Your task to perform on an android device: Do I have any events tomorrow? Image 0: 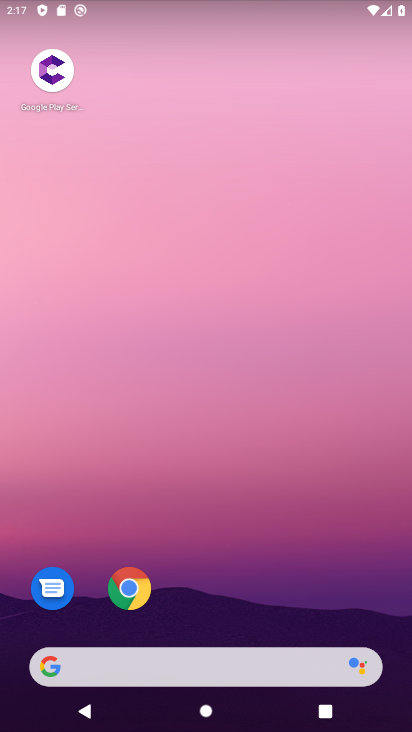
Step 0: drag from (192, 468) to (171, 64)
Your task to perform on an android device: Do I have any events tomorrow? Image 1: 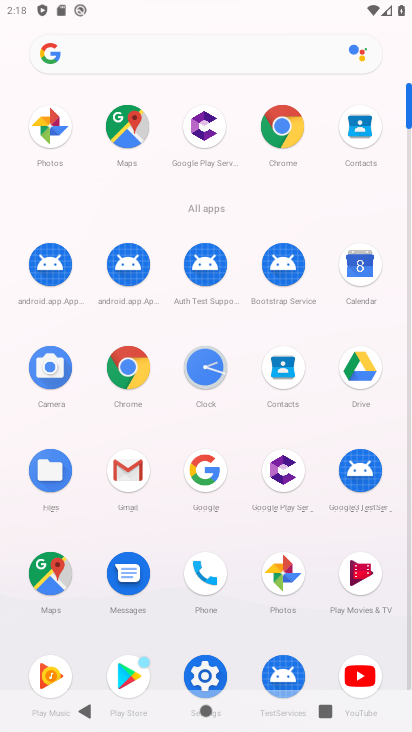
Step 1: click (207, 369)
Your task to perform on an android device: Do I have any events tomorrow? Image 2: 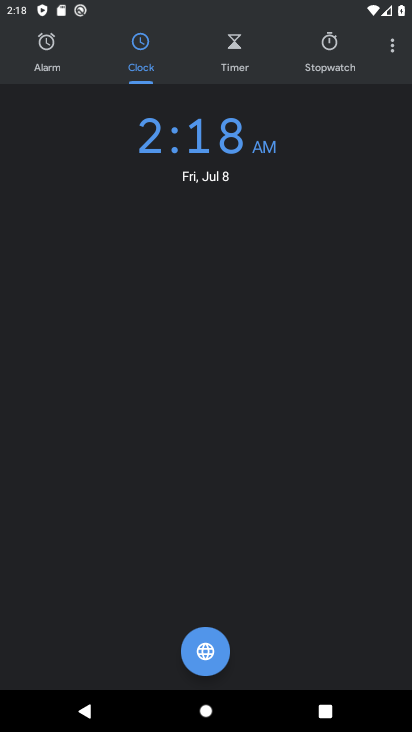
Step 2: press back button
Your task to perform on an android device: Do I have any events tomorrow? Image 3: 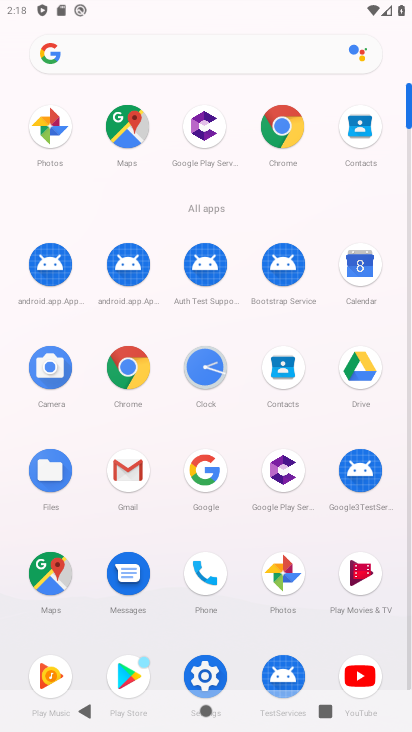
Step 3: click (357, 261)
Your task to perform on an android device: Do I have any events tomorrow? Image 4: 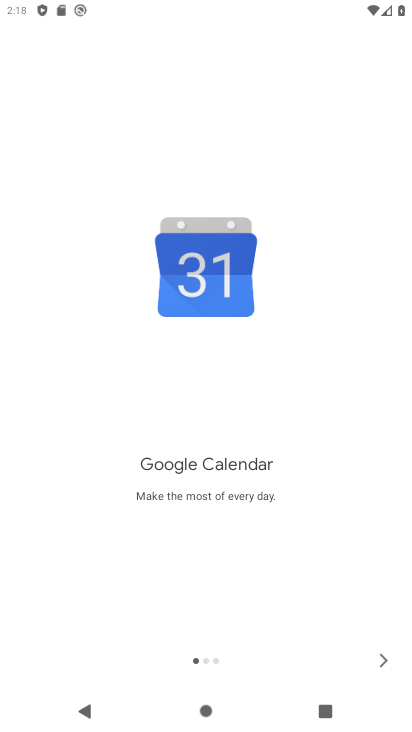
Step 4: click (386, 662)
Your task to perform on an android device: Do I have any events tomorrow? Image 5: 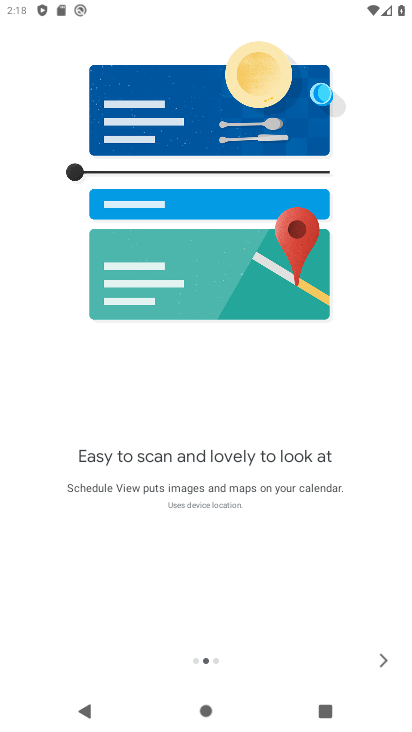
Step 5: click (386, 662)
Your task to perform on an android device: Do I have any events tomorrow? Image 6: 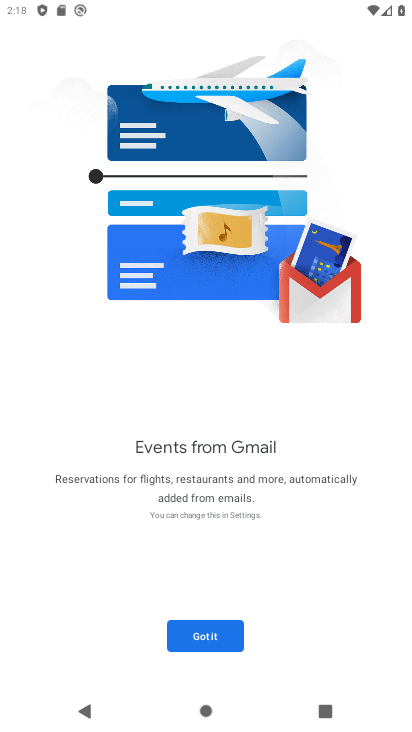
Step 6: click (203, 628)
Your task to perform on an android device: Do I have any events tomorrow? Image 7: 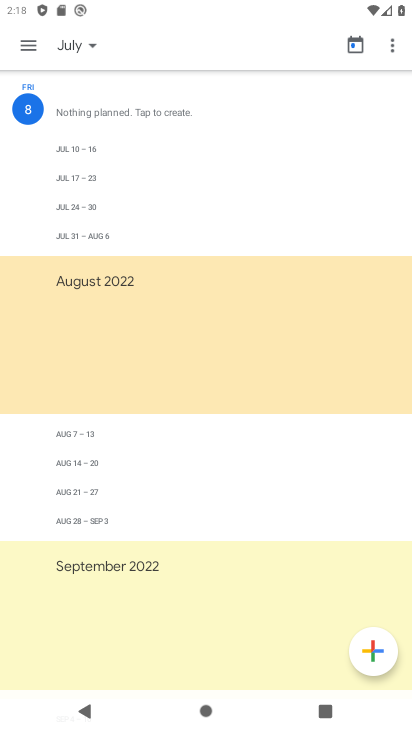
Step 7: click (25, 36)
Your task to perform on an android device: Do I have any events tomorrow? Image 8: 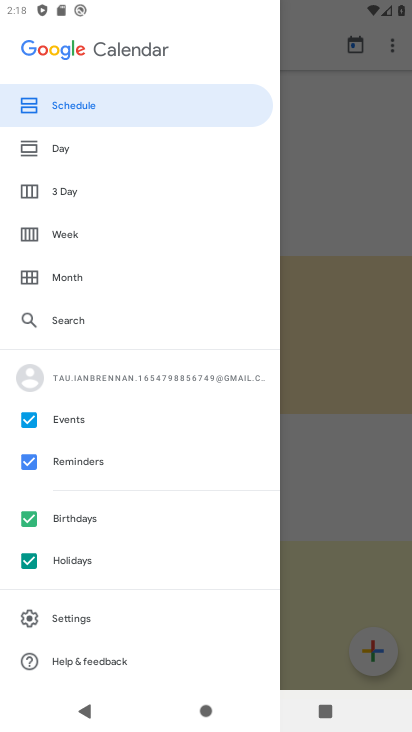
Step 8: click (67, 151)
Your task to perform on an android device: Do I have any events tomorrow? Image 9: 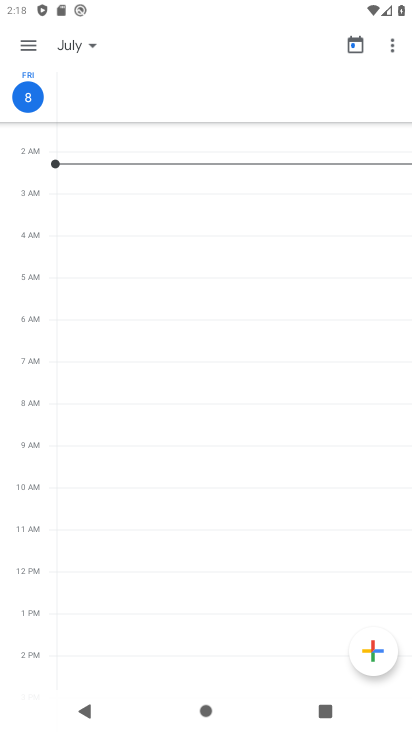
Step 9: click (82, 53)
Your task to perform on an android device: Do I have any events tomorrow? Image 10: 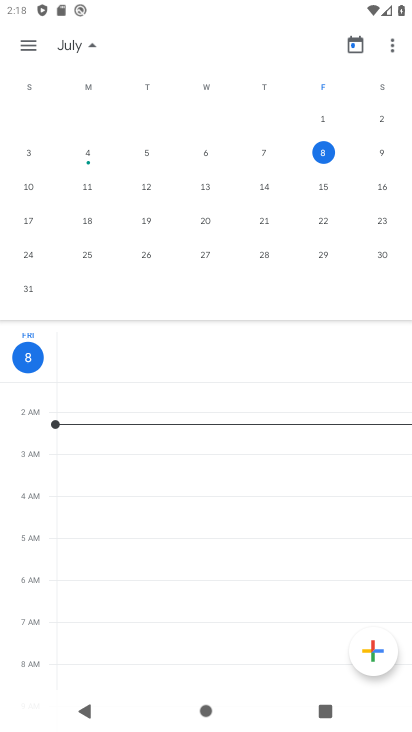
Step 10: click (375, 146)
Your task to perform on an android device: Do I have any events tomorrow? Image 11: 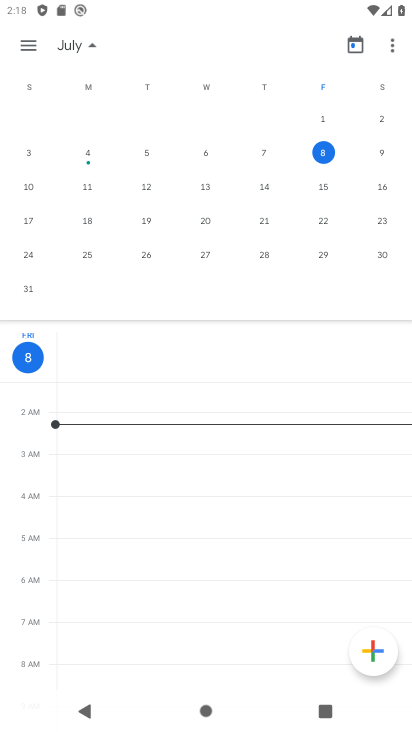
Step 11: click (375, 146)
Your task to perform on an android device: Do I have any events tomorrow? Image 12: 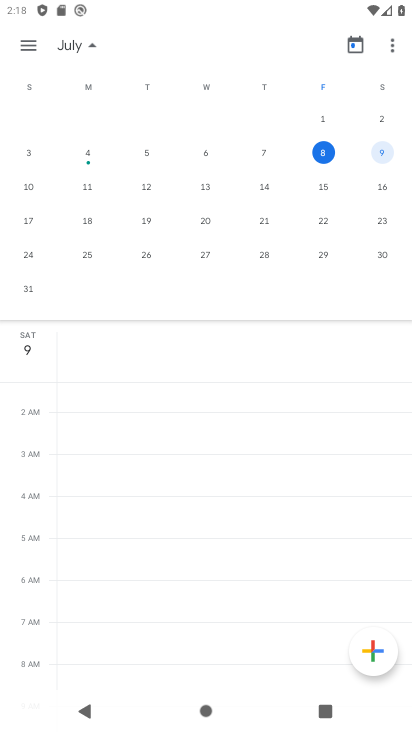
Step 12: task complete